Your task to perform on an android device: Open Google Chrome and click the shortcut for Amazon.com Image 0: 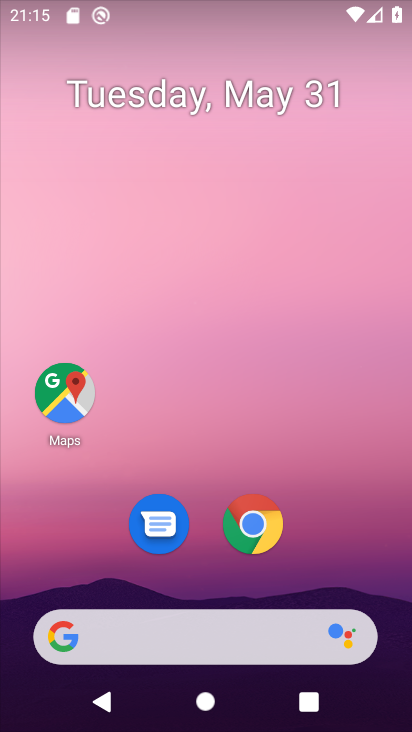
Step 0: click (258, 512)
Your task to perform on an android device: Open Google Chrome and click the shortcut for Amazon.com Image 1: 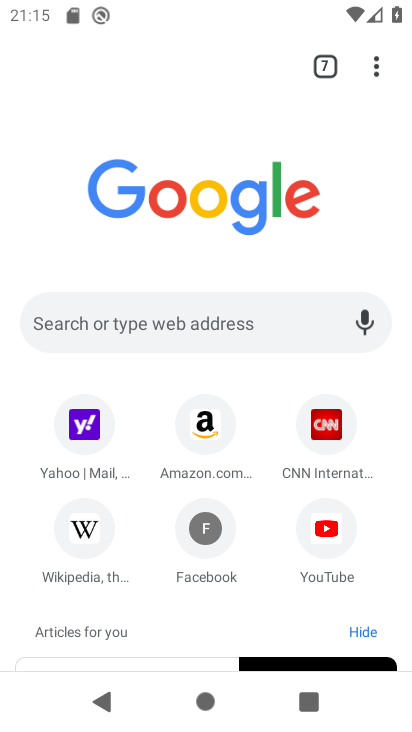
Step 1: click (212, 424)
Your task to perform on an android device: Open Google Chrome and click the shortcut for Amazon.com Image 2: 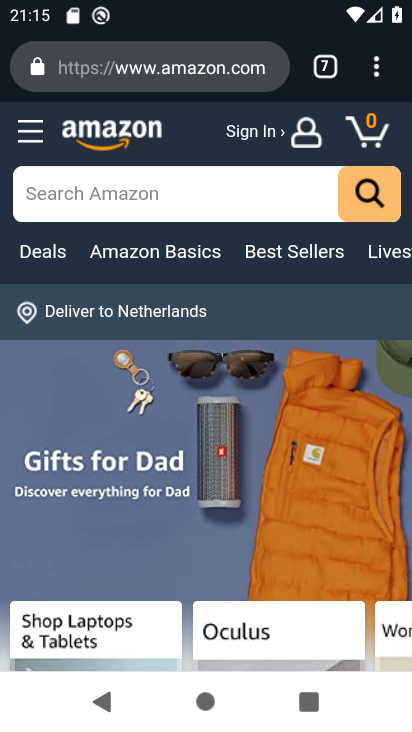
Step 2: task complete